Your task to perform on an android device: Show me productivity apps on the Play Store Image 0: 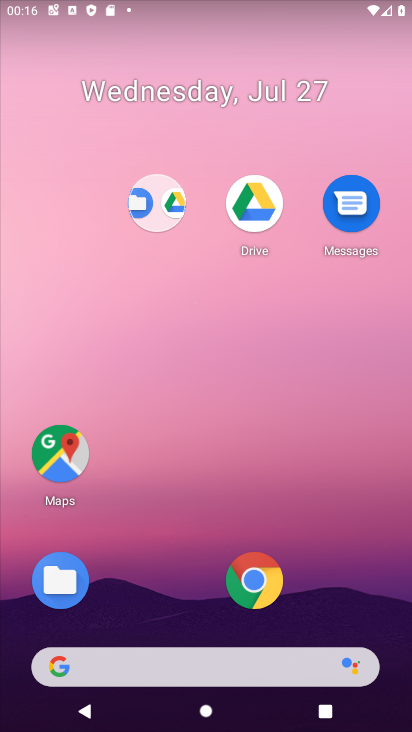
Step 0: drag from (130, 569) to (147, 132)
Your task to perform on an android device: Show me productivity apps on the Play Store Image 1: 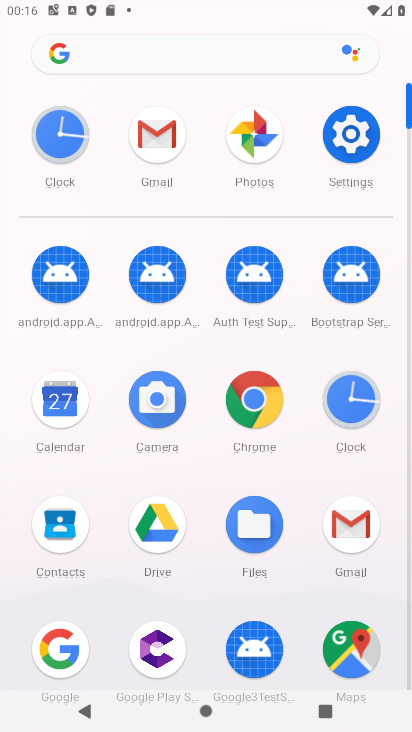
Step 1: drag from (222, 608) to (204, 261)
Your task to perform on an android device: Show me productivity apps on the Play Store Image 2: 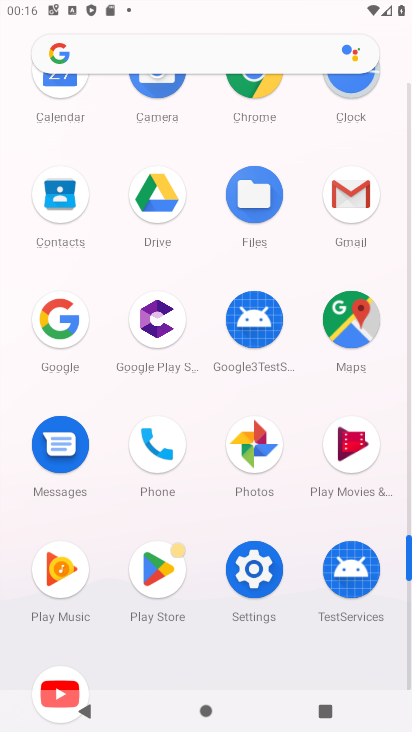
Step 2: click (145, 593)
Your task to perform on an android device: Show me productivity apps on the Play Store Image 3: 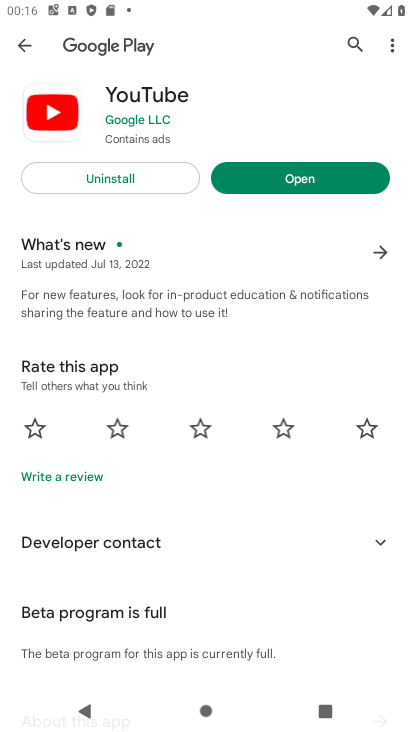
Step 3: click (24, 60)
Your task to perform on an android device: Show me productivity apps on the Play Store Image 4: 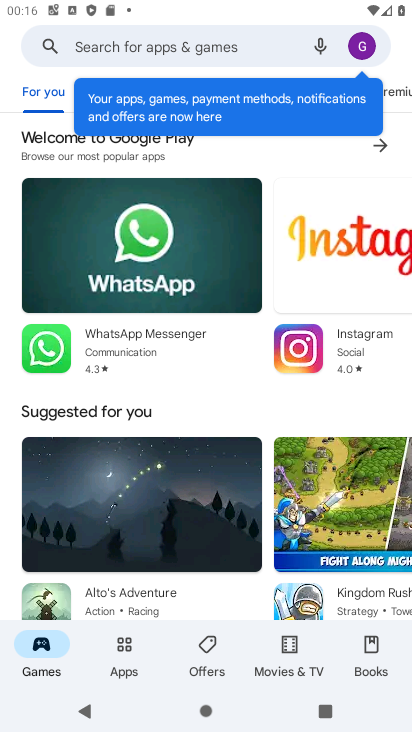
Step 4: click (129, 663)
Your task to perform on an android device: Show me productivity apps on the Play Store Image 5: 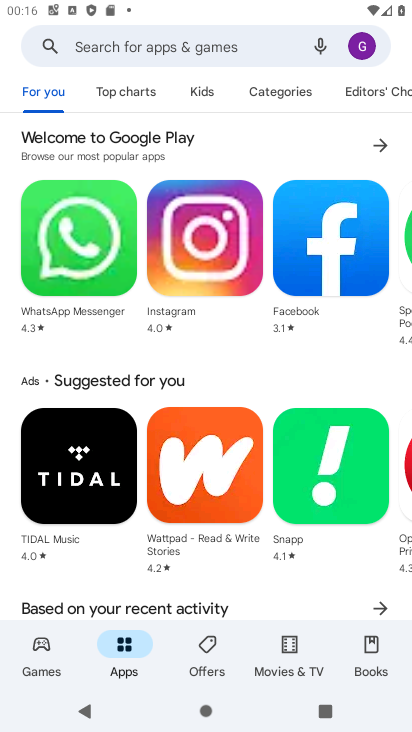
Step 5: click (303, 93)
Your task to perform on an android device: Show me productivity apps on the Play Store Image 6: 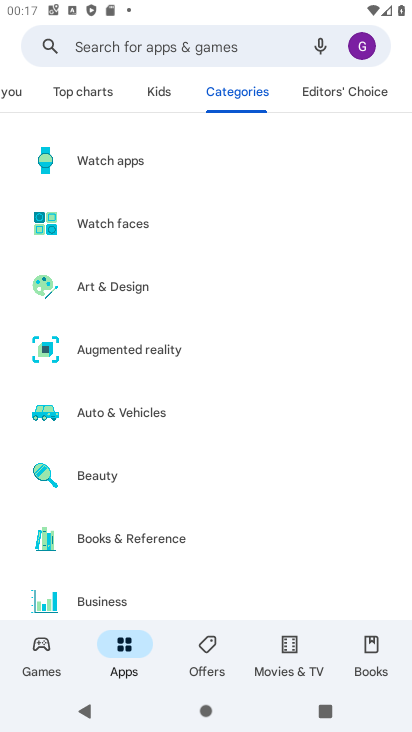
Step 6: drag from (126, 569) to (197, 162)
Your task to perform on an android device: Show me productivity apps on the Play Store Image 7: 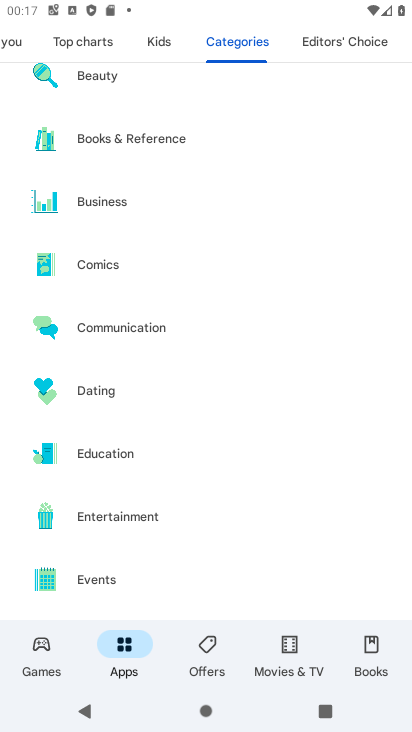
Step 7: drag from (155, 601) to (274, 76)
Your task to perform on an android device: Show me productivity apps on the Play Store Image 8: 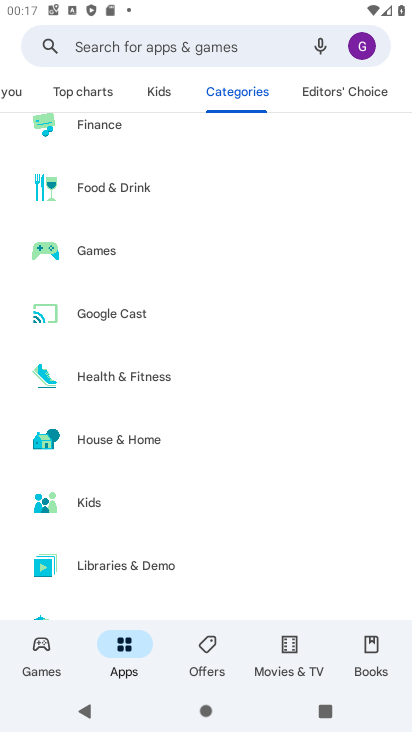
Step 8: drag from (250, 552) to (261, 217)
Your task to perform on an android device: Show me productivity apps on the Play Store Image 9: 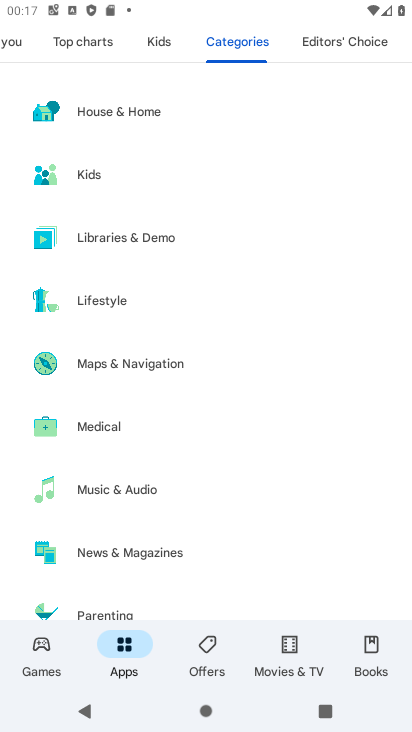
Step 9: drag from (182, 574) to (149, 196)
Your task to perform on an android device: Show me productivity apps on the Play Store Image 10: 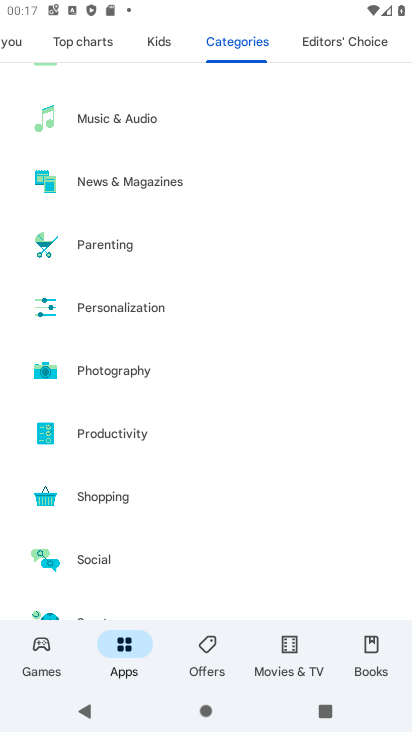
Step 10: click (188, 429)
Your task to perform on an android device: Show me productivity apps on the Play Store Image 11: 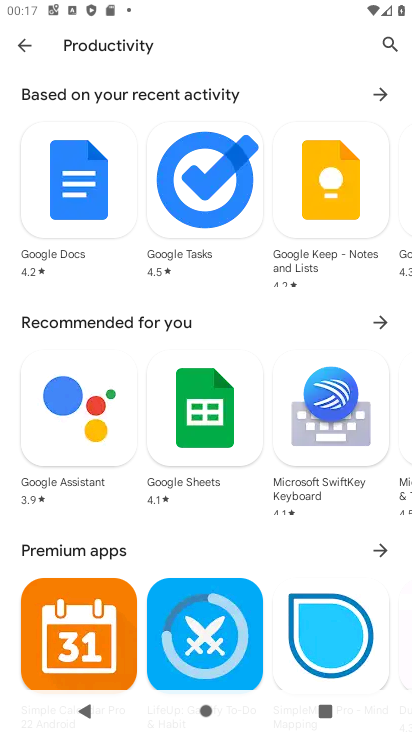
Step 11: task complete